Your task to perform on an android device: search for starred emails in the gmail app Image 0: 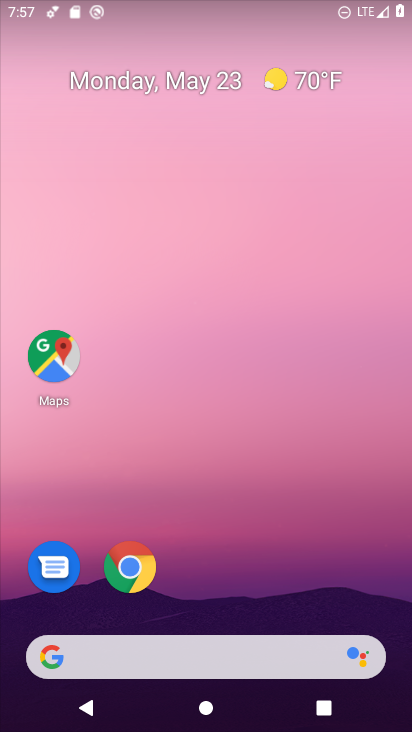
Step 0: click (315, 62)
Your task to perform on an android device: search for starred emails in the gmail app Image 1: 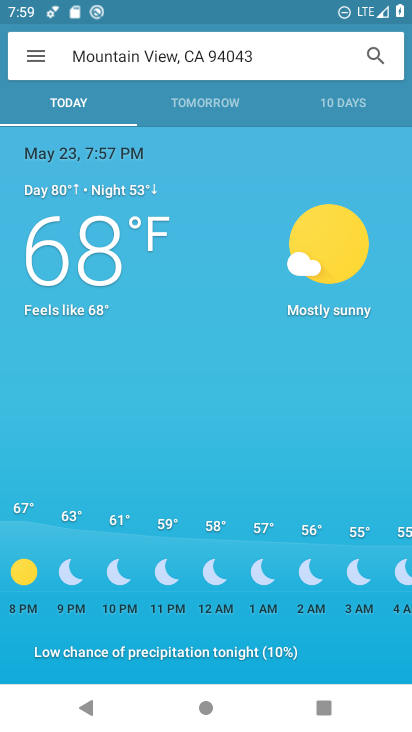
Step 1: press home button
Your task to perform on an android device: search for starred emails in the gmail app Image 2: 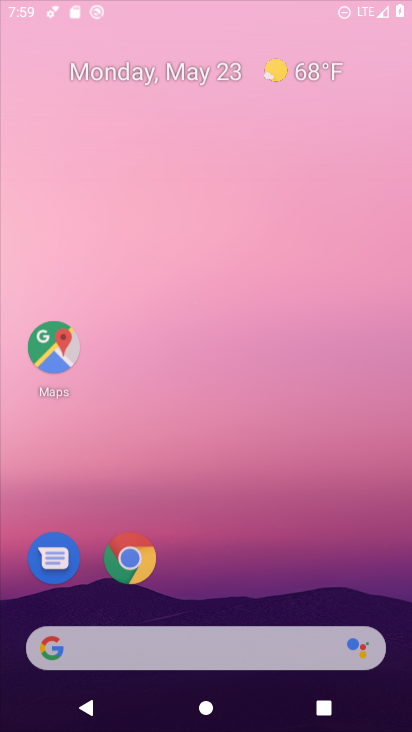
Step 2: drag from (143, 578) to (322, 0)
Your task to perform on an android device: search for starred emails in the gmail app Image 3: 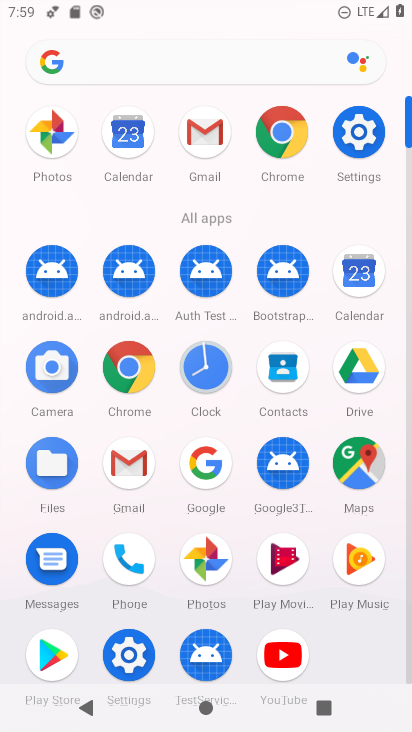
Step 3: click (113, 474)
Your task to perform on an android device: search for starred emails in the gmail app Image 4: 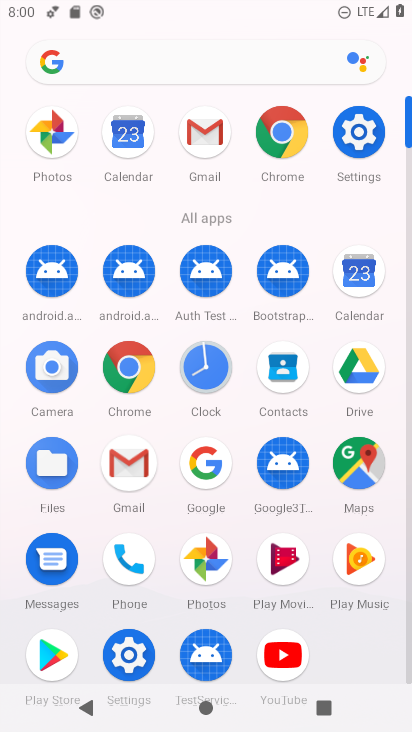
Step 4: click (113, 474)
Your task to perform on an android device: search for starred emails in the gmail app Image 5: 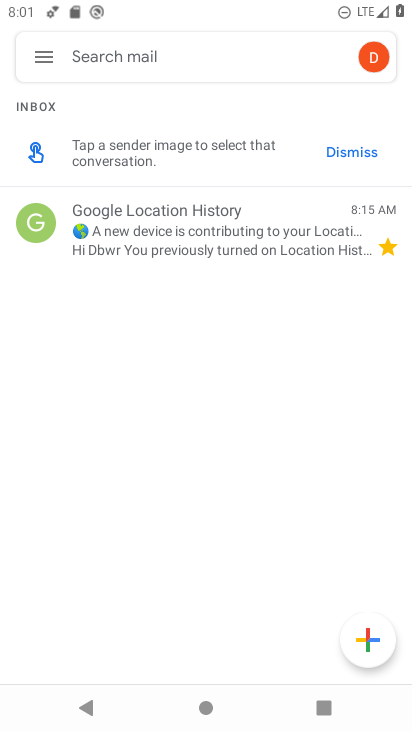
Step 5: click (106, 233)
Your task to perform on an android device: search for starred emails in the gmail app Image 6: 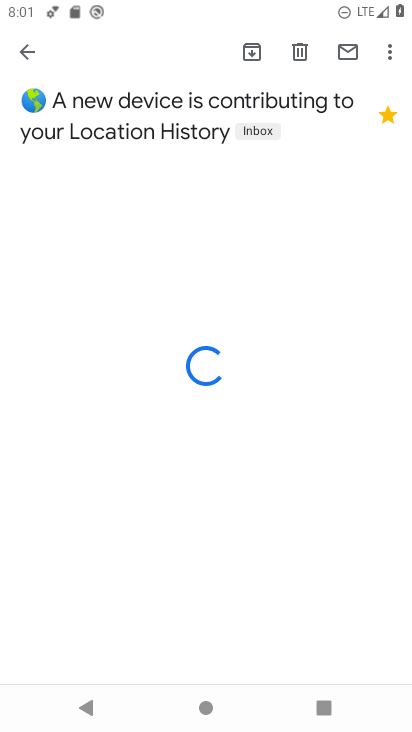
Step 6: click (14, 64)
Your task to perform on an android device: search for starred emails in the gmail app Image 7: 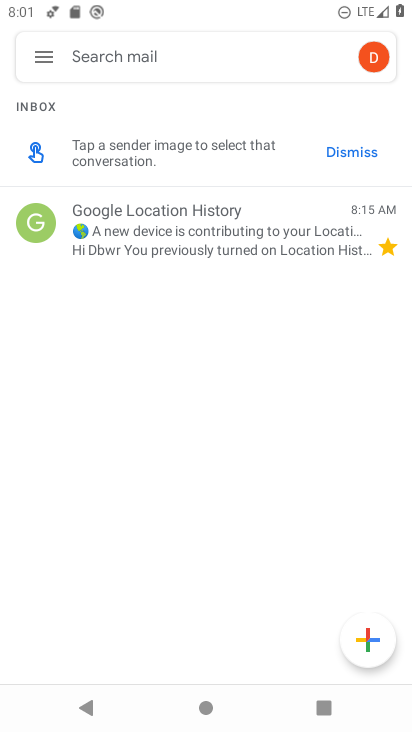
Step 7: click (206, 236)
Your task to perform on an android device: search for starred emails in the gmail app Image 8: 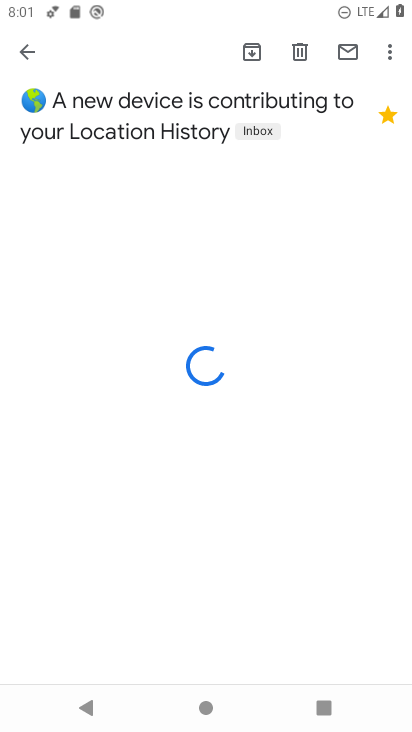
Step 8: task complete